Your task to perform on an android device: open chrome and create a bookmark for the current page Image 0: 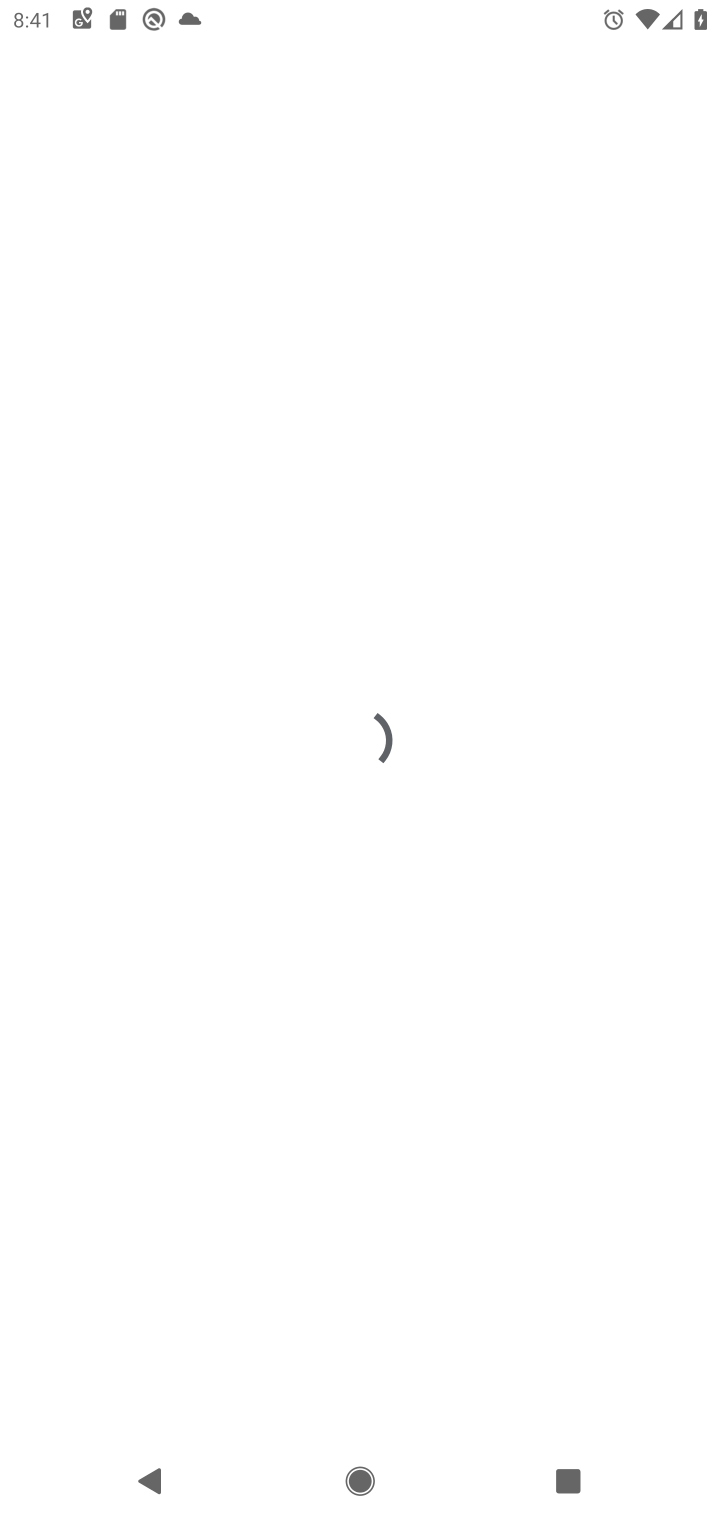
Step 0: press home button
Your task to perform on an android device: open chrome and create a bookmark for the current page Image 1: 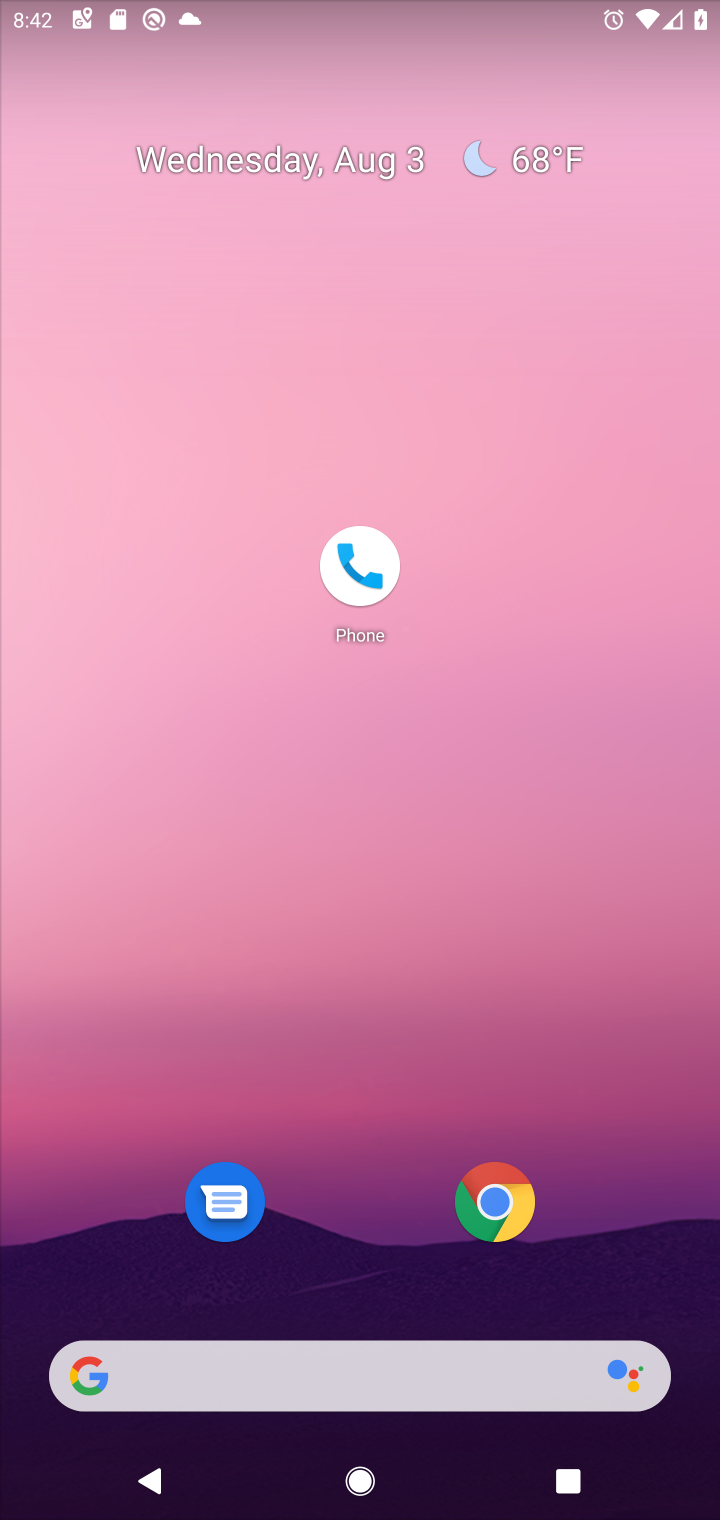
Step 1: click (494, 1200)
Your task to perform on an android device: open chrome and create a bookmark for the current page Image 2: 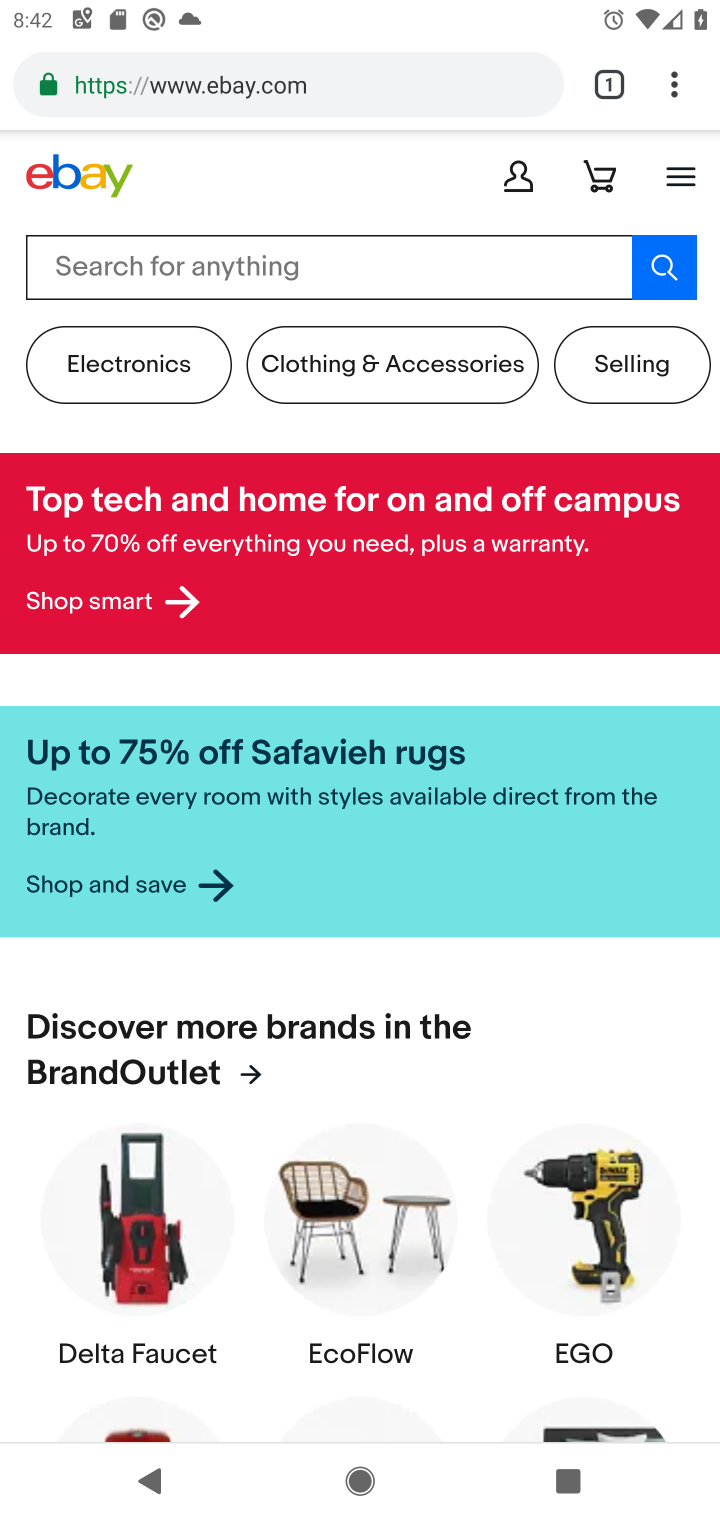
Step 2: click (674, 93)
Your task to perform on an android device: open chrome and create a bookmark for the current page Image 3: 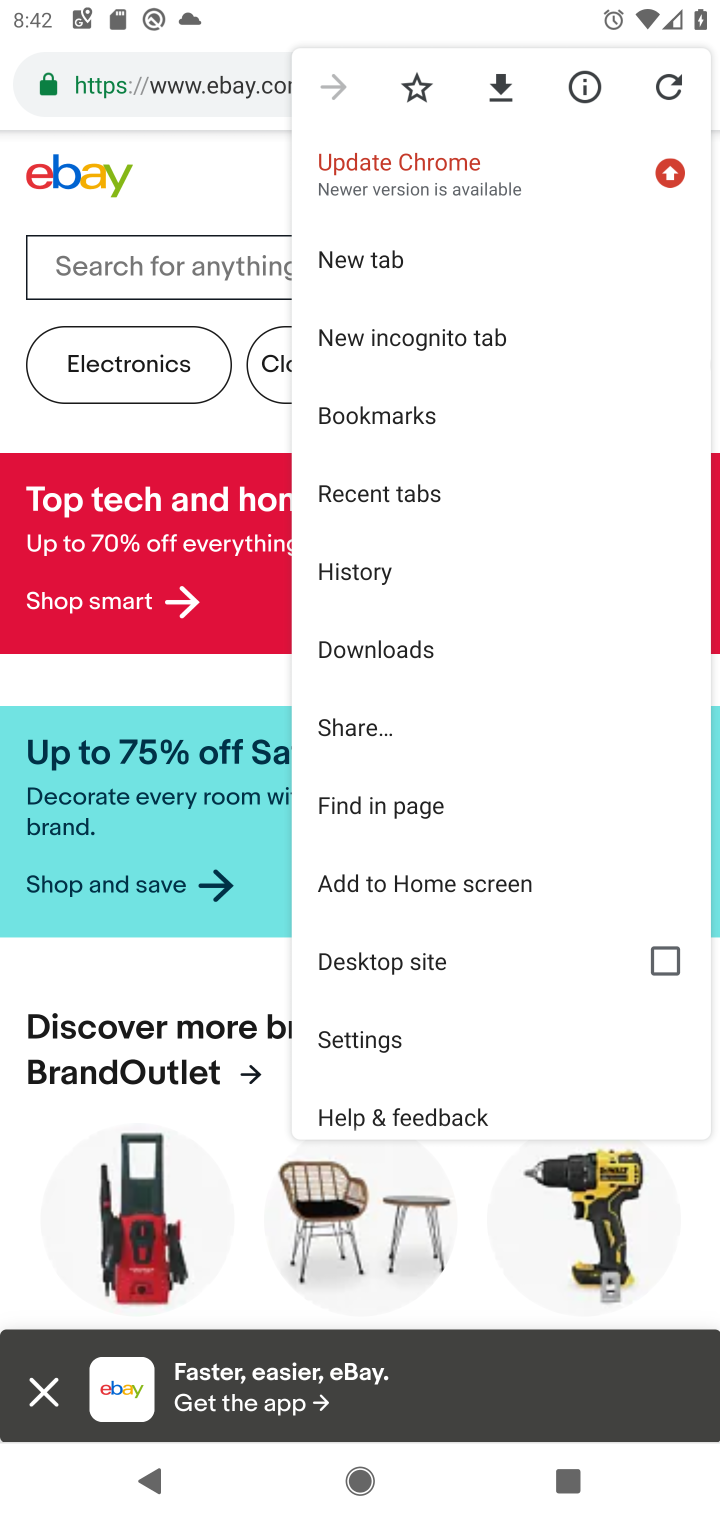
Step 3: click (413, 89)
Your task to perform on an android device: open chrome and create a bookmark for the current page Image 4: 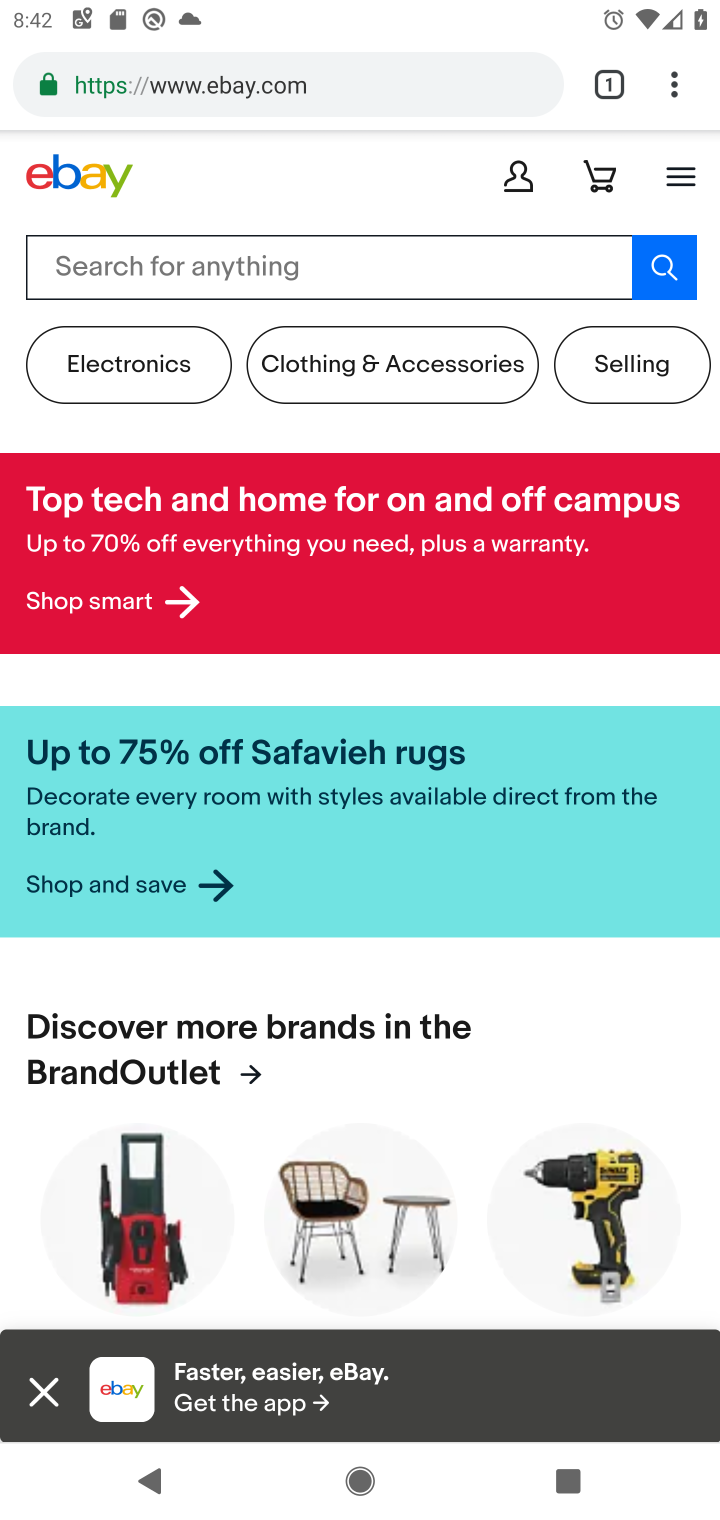
Step 4: task complete